Your task to perform on an android device: turn off data saver in the chrome app Image 0: 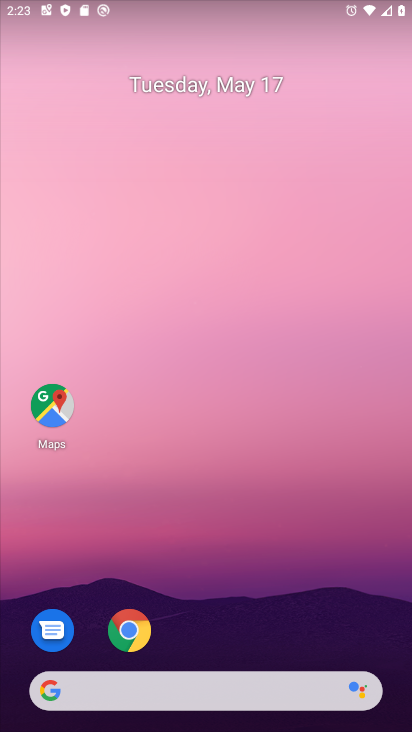
Step 0: click (108, 234)
Your task to perform on an android device: turn off data saver in the chrome app Image 1: 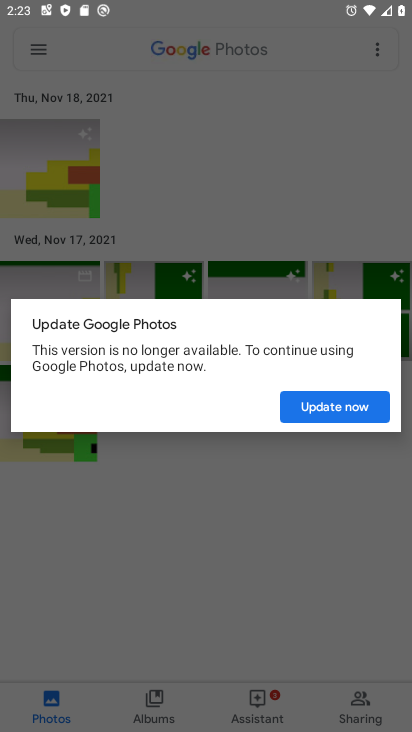
Step 1: press back button
Your task to perform on an android device: turn off data saver in the chrome app Image 2: 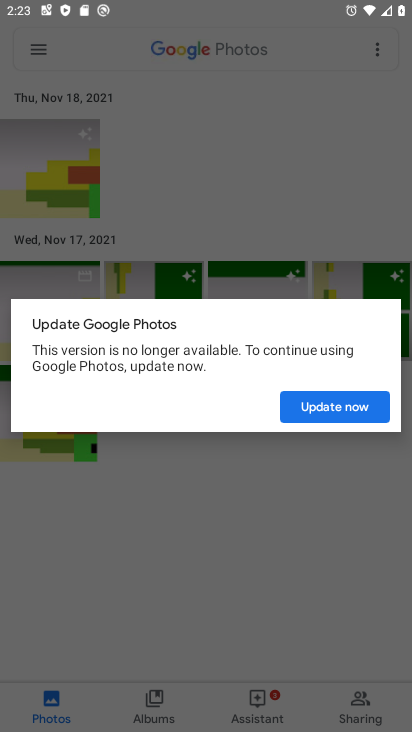
Step 2: press home button
Your task to perform on an android device: turn off data saver in the chrome app Image 3: 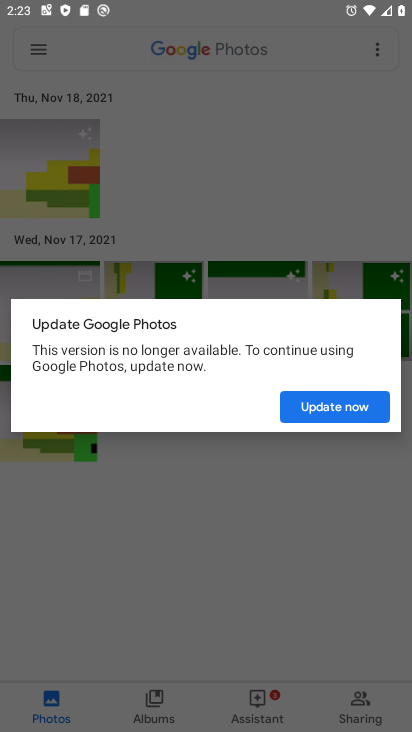
Step 3: press home button
Your task to perform on an android device: turn off data saver in the chrome app Image 4: 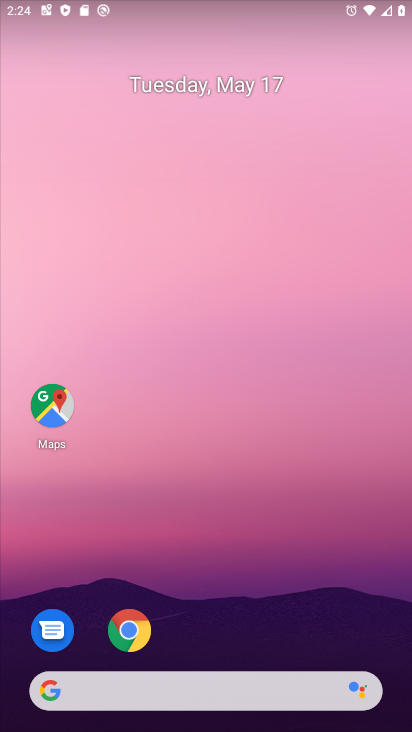
Step 4: drag from (11, 324) to (349, 437)
Your task to perform on an android device: turn off data saver in the chrome app Image 5: 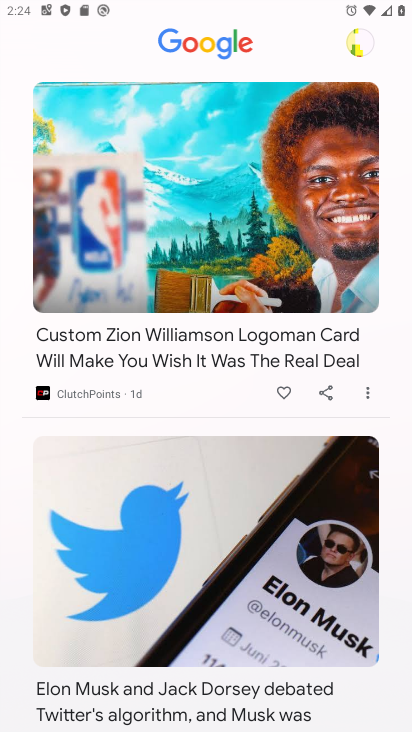
Step 5: drag from (260, 595) to (261, 356)
Your task to perform on an android device: turn off data saver in the chrome app Image 6: 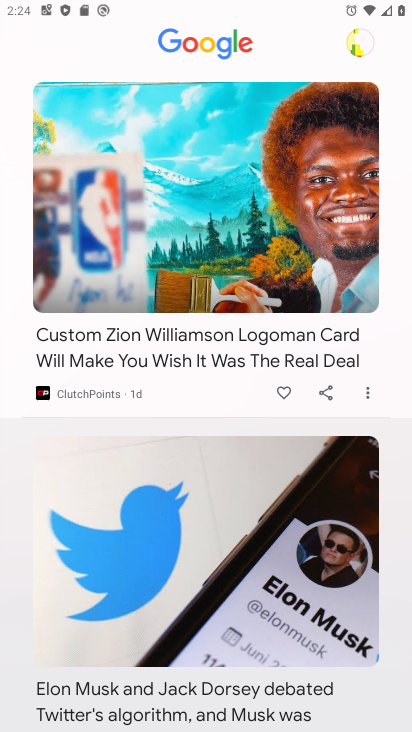
Step 6: drag from (296, 490) to (293, 363)
Your task to perform on an android device: turn off data saver in the chrome app Image 7: 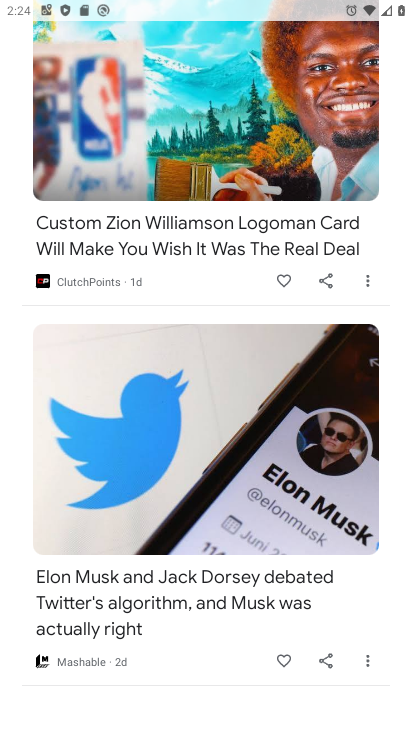
Step 7: drag from (294, 483) to (253, 261)
Your task to perform on an android device: turn off data saver in the chrome app Image 8: 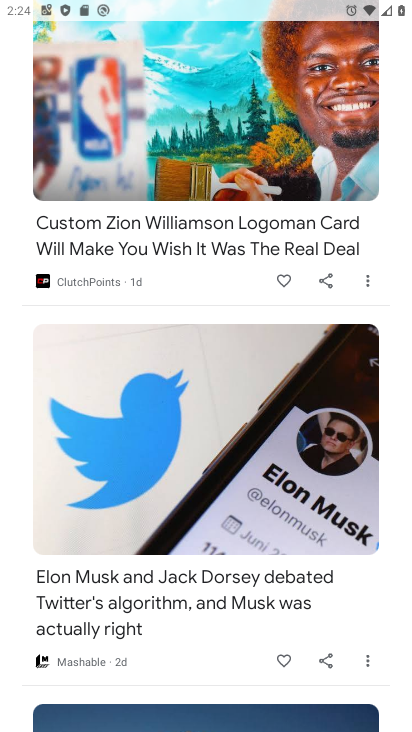
Step 8: drag from (298, 444) to (298, 350)
Your task to perform on an android device: turn off data saver in the chrome app Image 9: 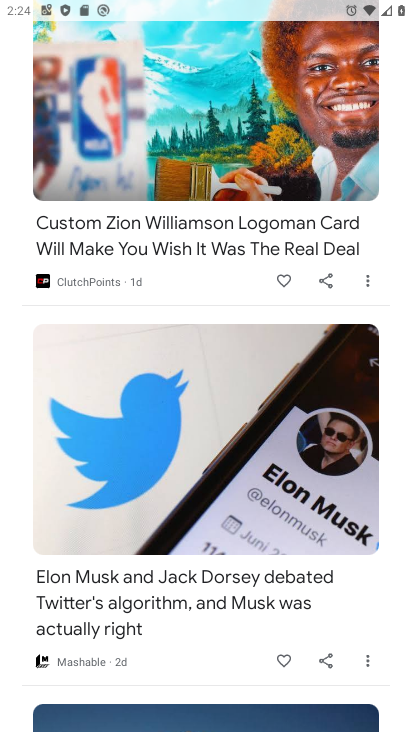
Step 9: press back button
Your task to perform on an android device: turn off data saver in the chrome app Image 10: 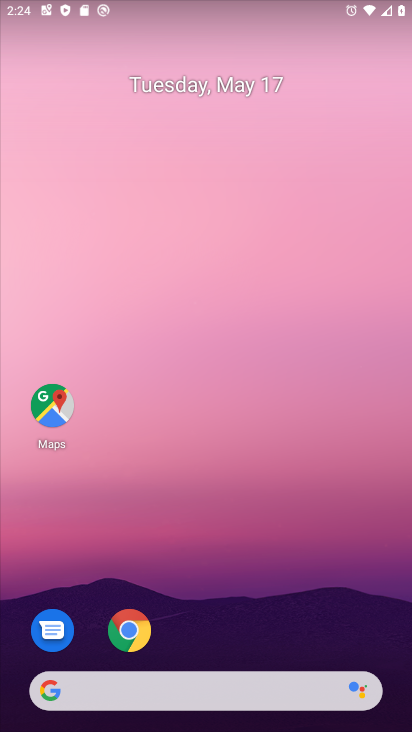
Step 10: drag from (253, 613) to (146, 139)
Your task to perform on an android device: turn off data saver in the chrome app Image 11: 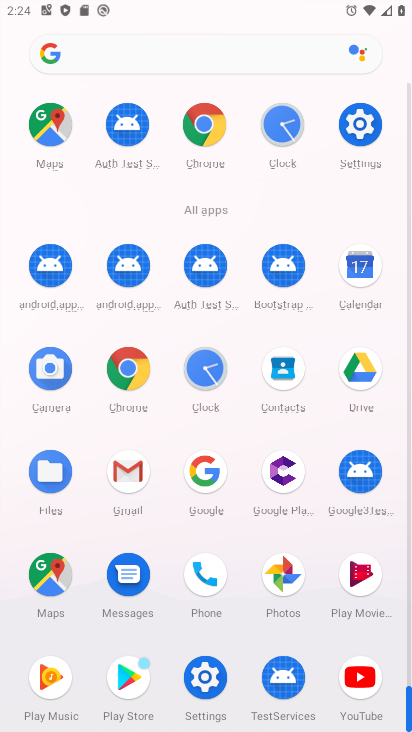
Step 11: click (195, 120)
Your task to perform on an android device: turn off data saver in the chrome app Image 12: 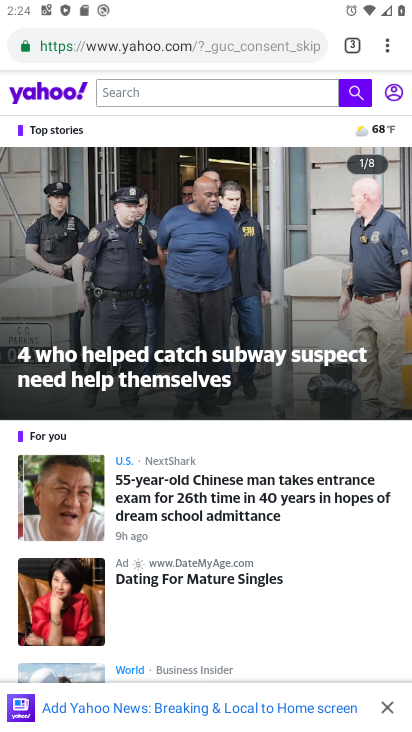
Step 12: drag from (385, 46) to (223, 539)
Your task to perform on an android device: turn off data saver in the chrome app Image 13: 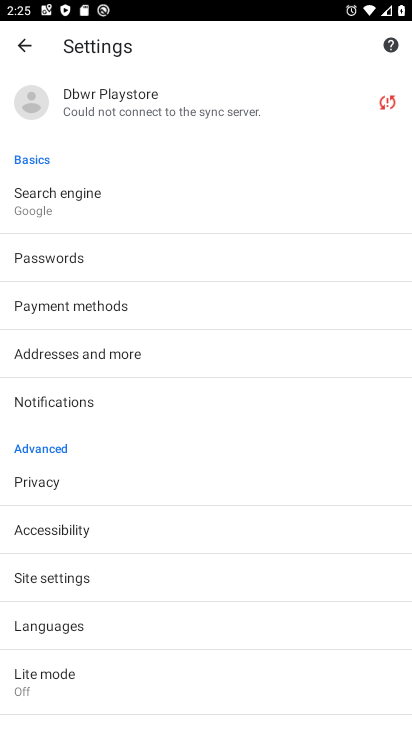
Step 13: click (44, 657)
Your task to perform on an android device: turn off data saver in the chrome app Image 14: 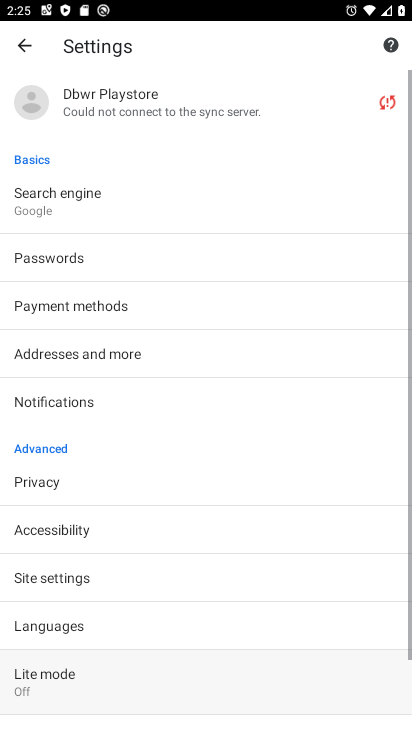
Step 14: click (42, 669)
Your task to perform on an android device: turn off data saver in the chrome app Image 15: 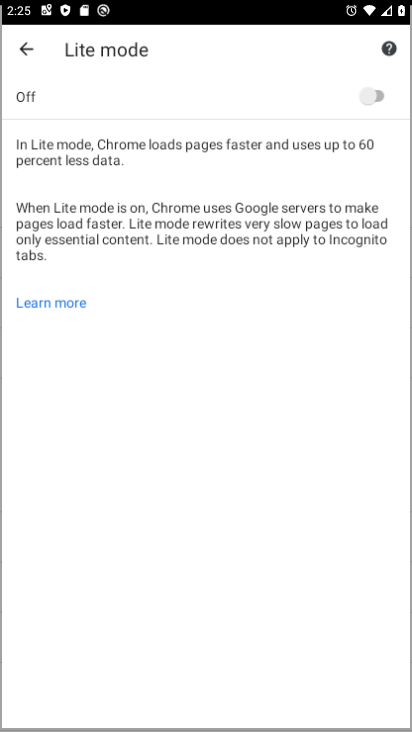
Step 15: click (40, 671)
Your task to perform on an android device: turn off data saver in the chrome app Image 16: 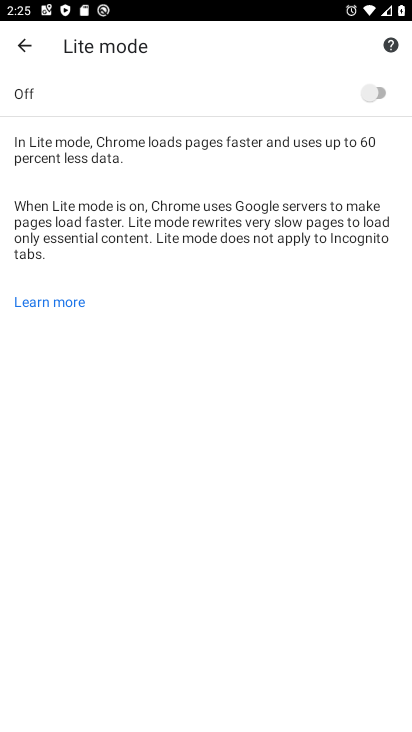
Step 16: task complete